Your task to perform on an android device: turn off data saver in the chrome app Image 0: 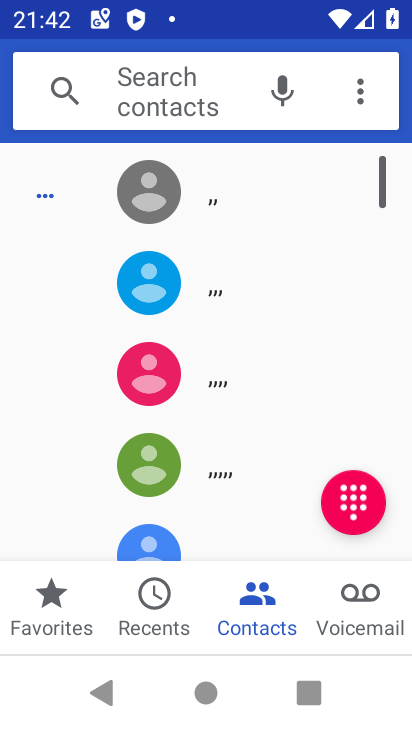
Step 0: press home button
Your task to perform on an android device: turn off data saver in the chrome app Image 1: 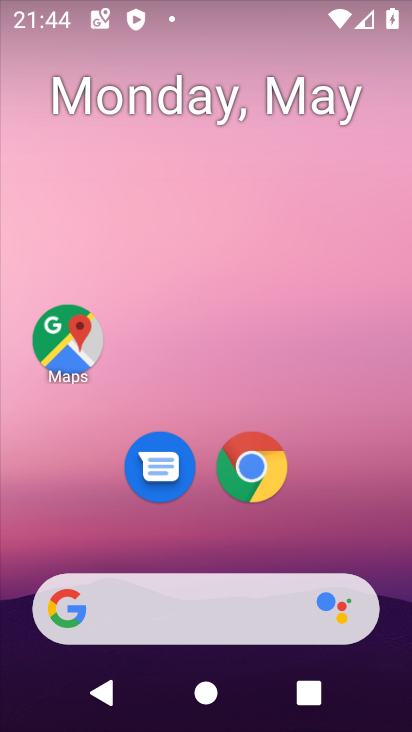
Step 1: click (275, 467)
Your task to perform on an android device: turn off data saver in the chrome app Image 2: 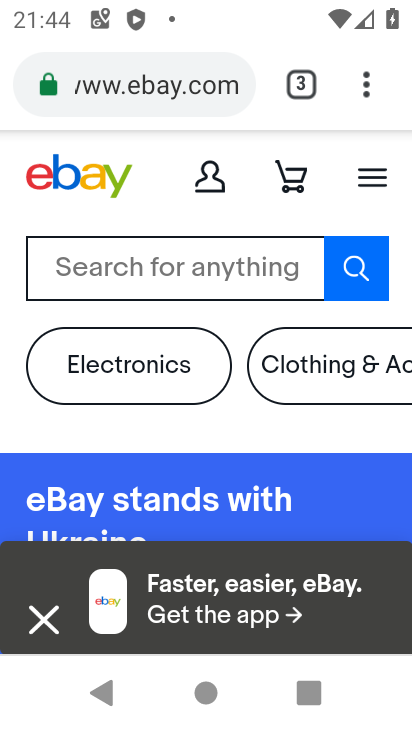
Step 2: click (362, 110)
Your task to perform on an android device: turn off data saver in the chrome app Image 3: 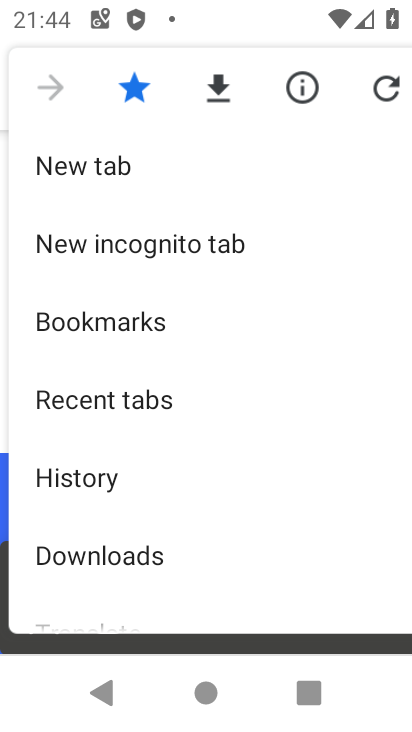
Step 3: drag from (181, 463) to (317, 1)
Your task to perform on an android device: turn off data saver in the chrome app Image 4: 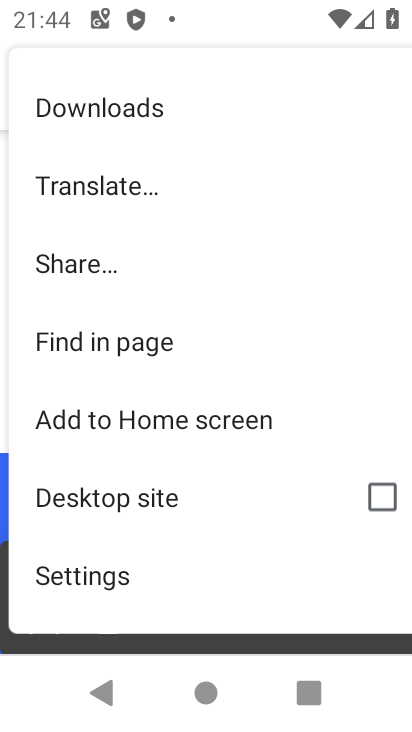
Step 4: click (84, 575)
Your task to perform on an android device: turn off data saver in the chrome app Image 5: 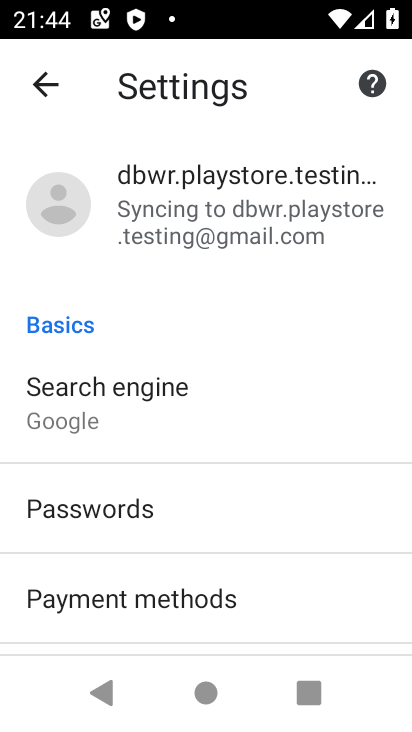
Step 5: drag from (97, 580) to (177, 140)
Your task to perform on an android device: turn off data saver in the chrome app Image 6: 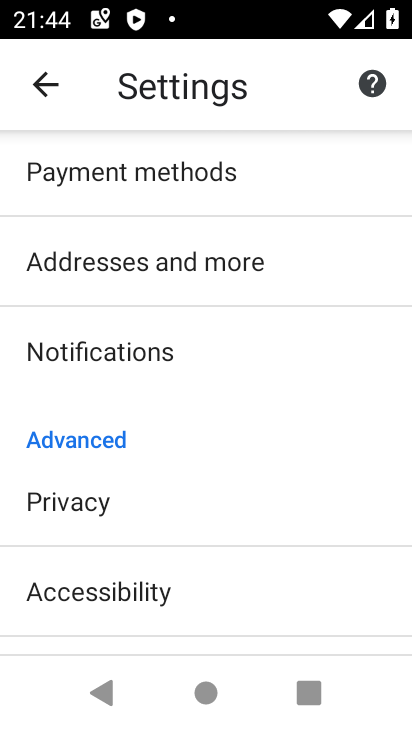
Step 6: drag from (151, 477) to (192, 171)
Your task to perform on an android device: turn off data saver in the chrome app Image 7: 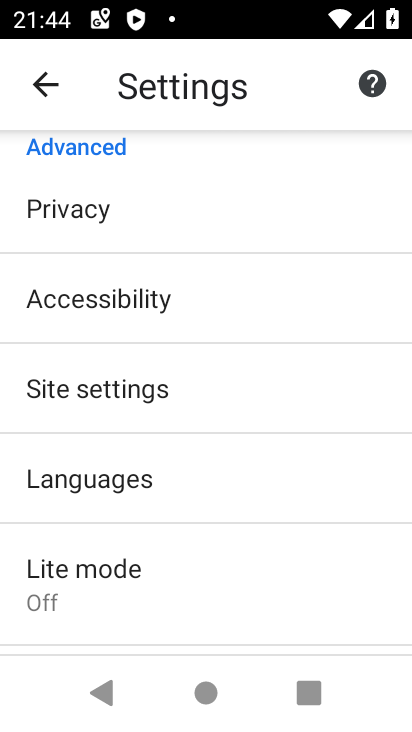
Step 7: click (77, 575)
Your task to perform on an android device: turn off data saver in the chrome app Image 8: 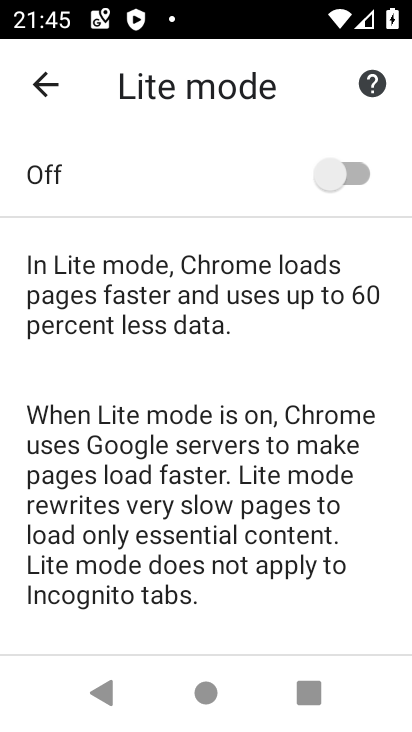
Step 8: click (350, 176)
Your task to perform on an android device: turn off data saver in the chrome app Image 9: 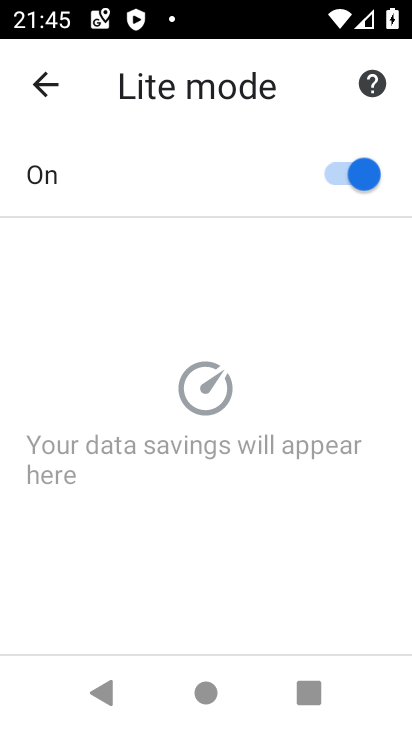
Step 9: click (350, 176)
Your task to perform on an android device: turn off data saver in the chrome app Image 10: 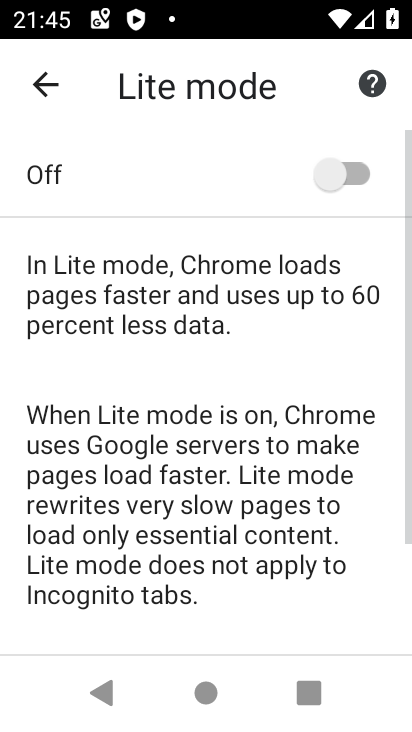
Step 10: task complete